Your task to perform on an android device: Open Google Chrome and click the shortcut for Amazon.com Image 0: 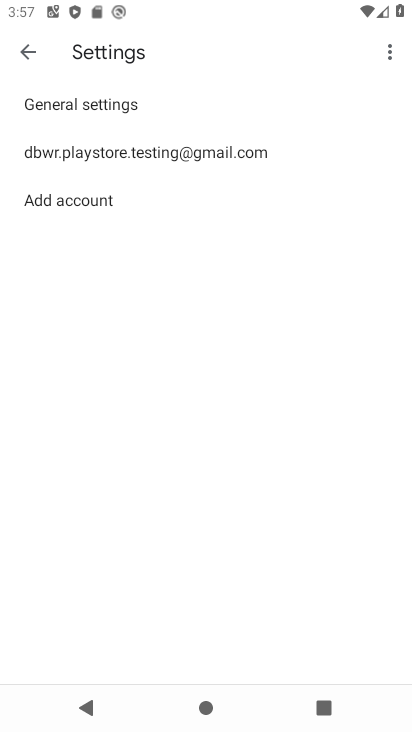
Step 0: press home button
Your task to perform on an android device: Open Google Chrome and click the shortcut for Amazon.com Image 1: 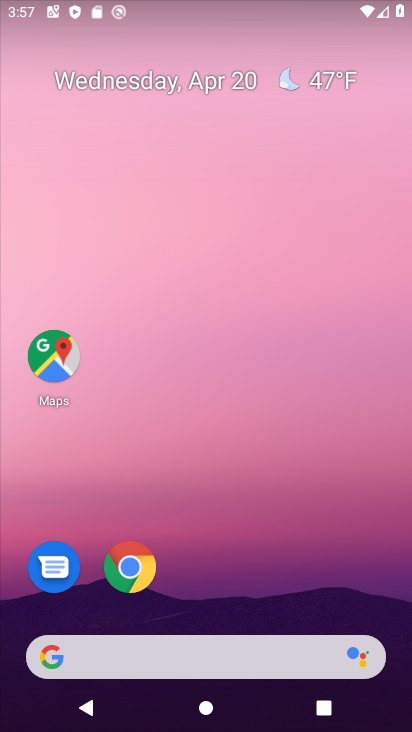
Step 1: click (132, 565)
Your task to perform on an android device: Open Google Chrome and click the shortcut for Amazon.com Image 2: 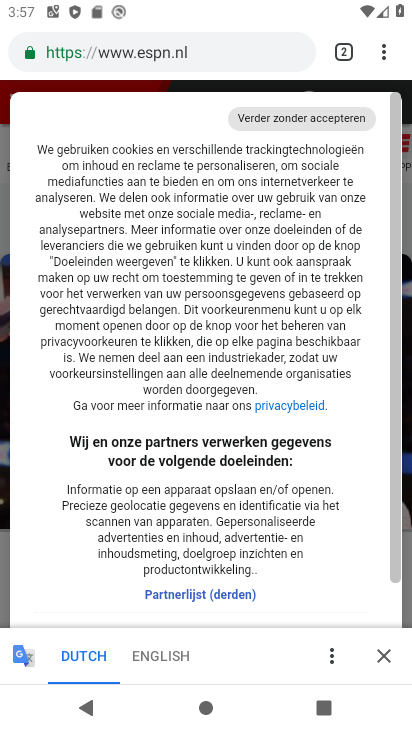
Step 2: click (260, 51)
Your task to perform on an android device: Open Google Chrome and click the shortcut for Amazon.com Image 3: 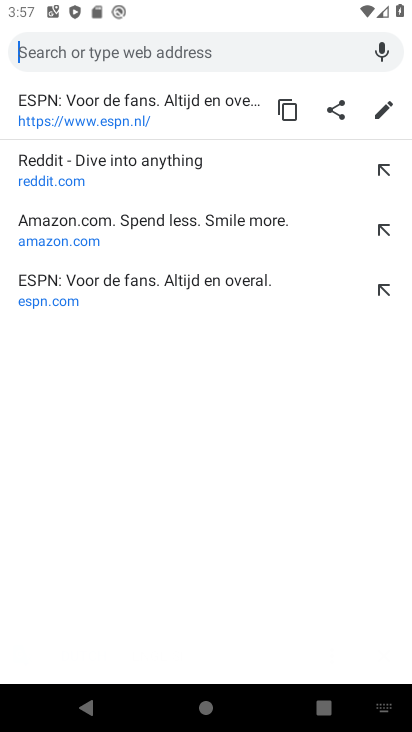
Step 3: press back button
Your task to perform on an android device: Open Google Chrome and click the shortcut for Amazon.com Image 4: 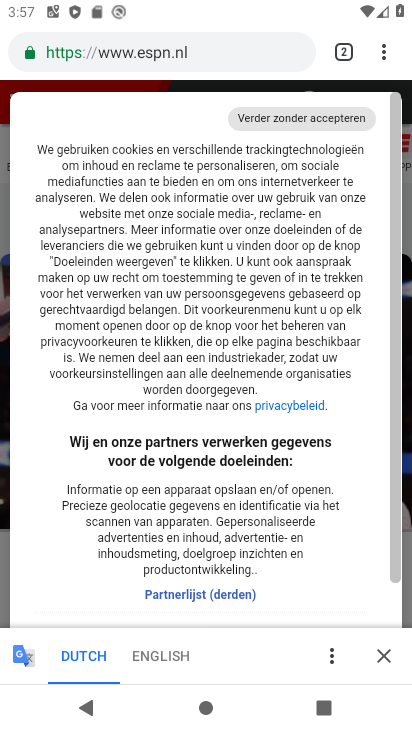
Step 4: click (344, 50)
Your task to perform on an android device: Open Google Chrome and click the shortcut for Amazon.com Image 5: 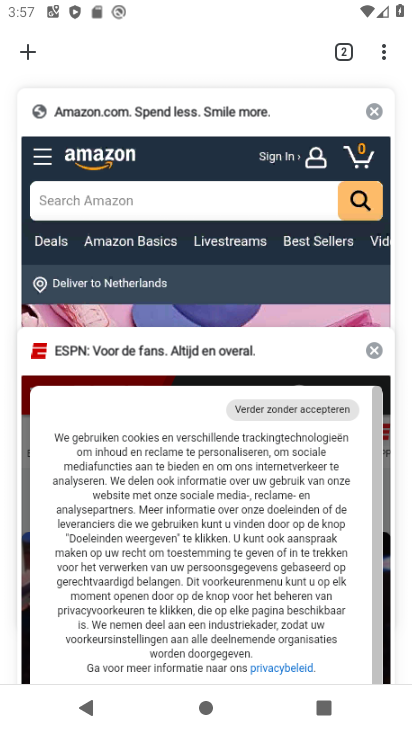
Step 5: click (35, 48)
Your task to perform on an android device: Open Google Chrome and click the shortcut for Amazon.com Image 6: 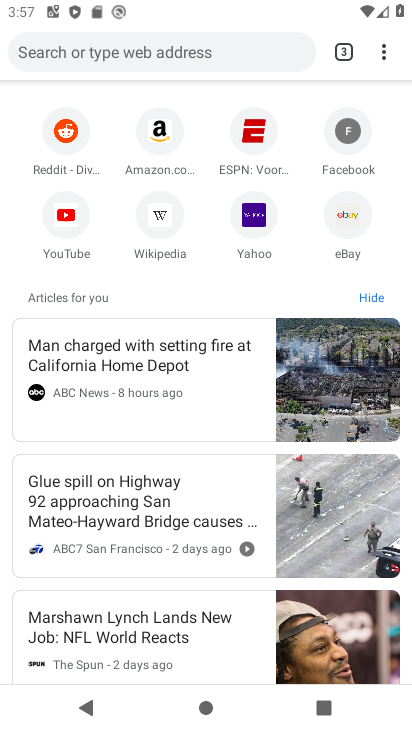
Step 6: click (163, 151)
Your task to perform on an android device: Open Google Chrome and click the shortcut for Amazon.com Image 7: 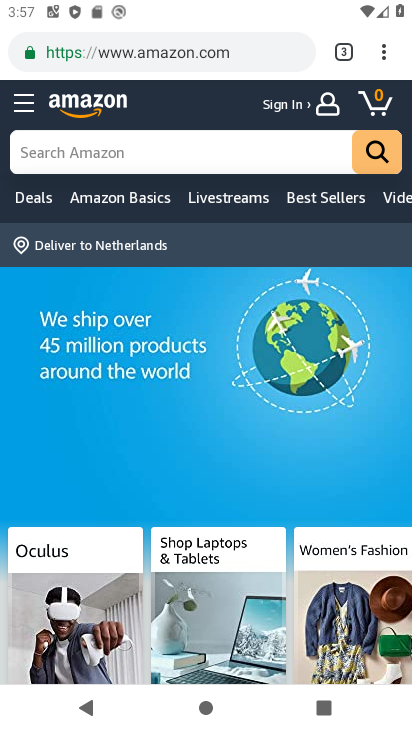
Step 7: task complete